Your task to perform on an android device: What is the news today? Image 0: 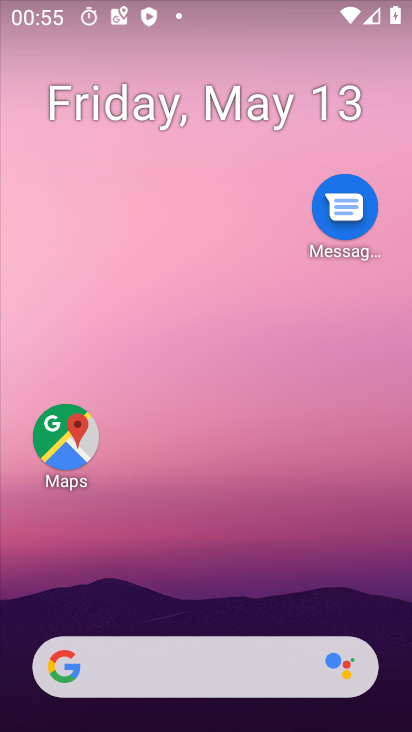
Step 0: press home button
Your task to perform on an android device: What is the news today? Image 1: 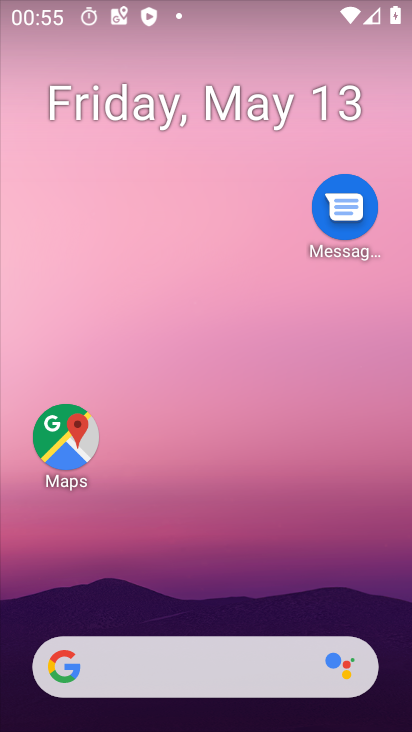
Step 1: drag from (62, 611) to (223, 58)
Your task to perform on an android device: What is the news today? Image 2: 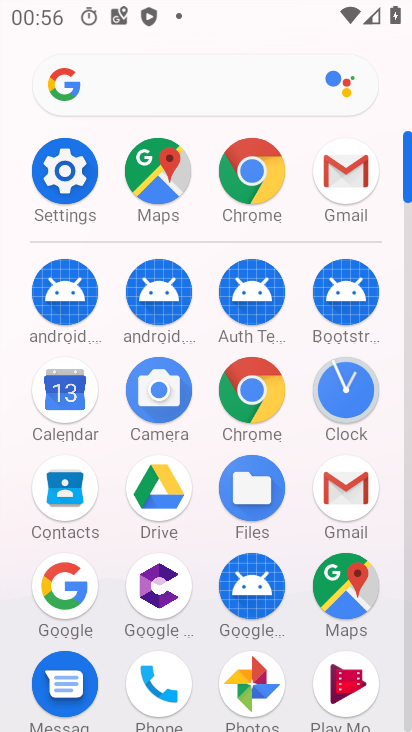
Step 2: click (242, 165)
Your task to perform on an android device: What is the news today? Image 3: 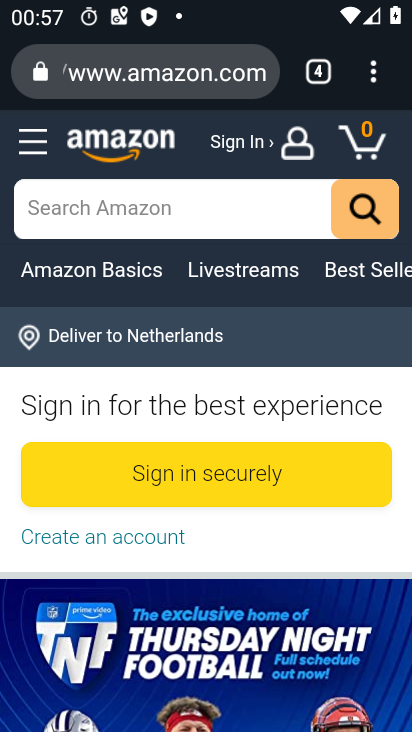
Step 3: click (163, 71)
Your task to perform on an android device: What is the news today? Image 4: 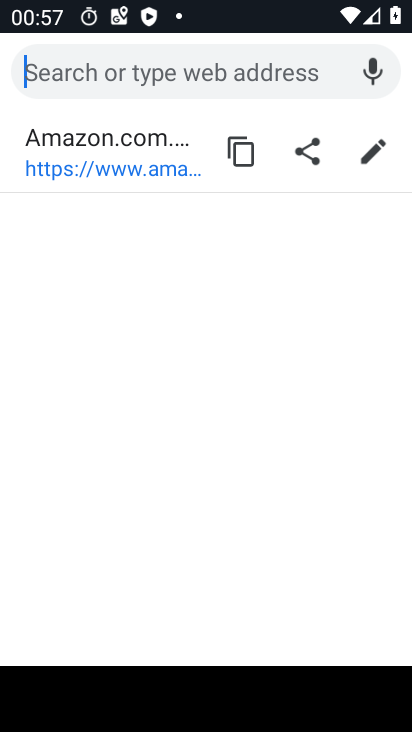
Step 4: type "What is the news today?"
Your task to perform on an android device: What is the news today? Image 5: 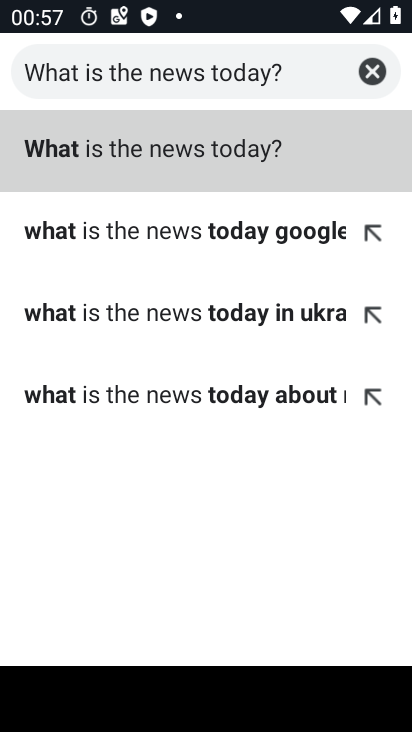
Step 5: click (179, 173)
Your task to perform on an android device: What is the news today? Image 6: 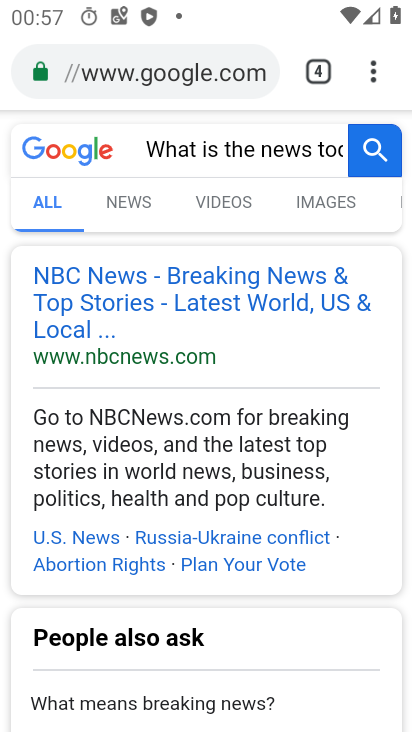
Step 6: task complete